Your task to perform on an android device: clear history in the chrome app Image 0: 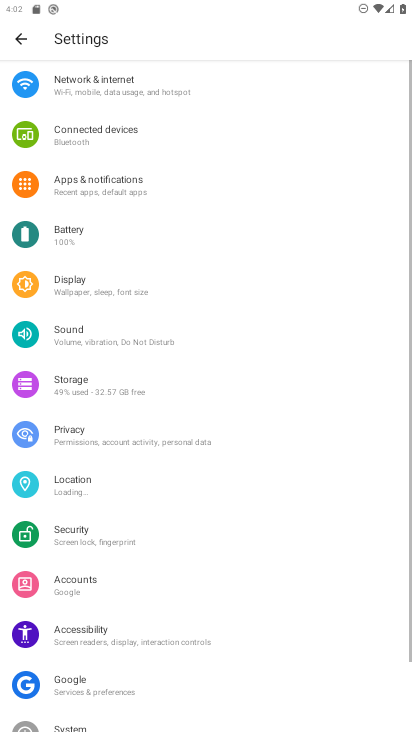
Step 0: press home button
Your task to perform on an android device: clear history in the chrome app Image 1: 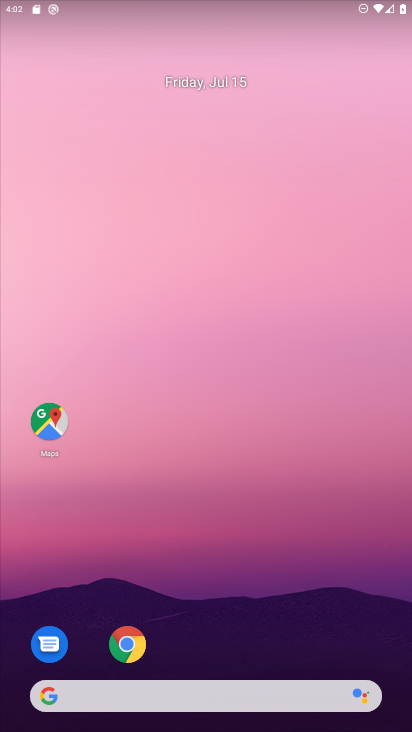
Step 1: click (130, 648)
Your task to perform on an android device: clear history in the chrome app Image 2: 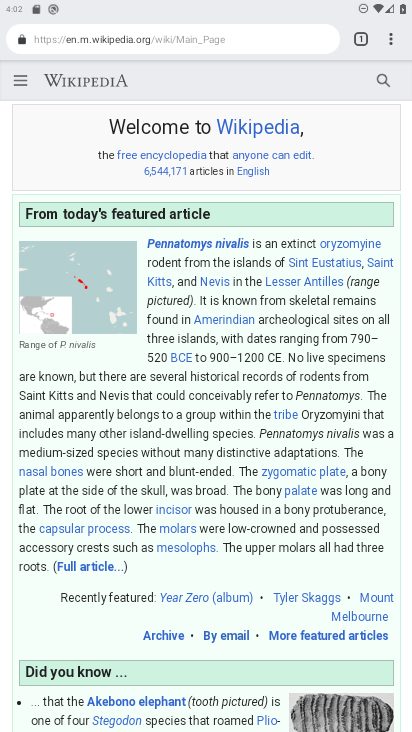
Step 2: click (396, 38)
Your task to perform on an android device: clear history in the chrome app Image 3: 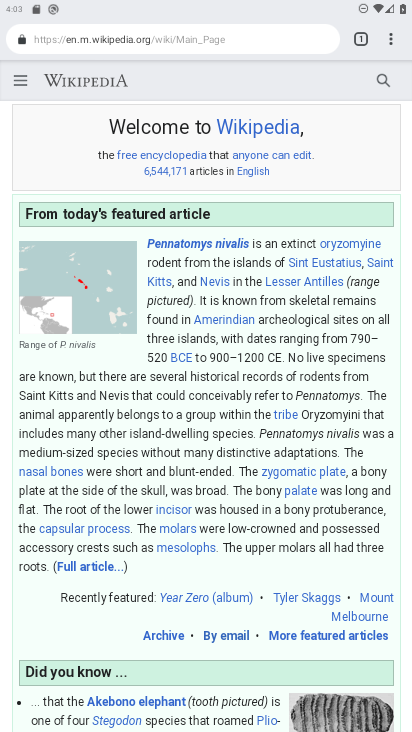
Step 3: click (393, 43)
Your task to perform on an android device: clear history in the chrome app Image 4: 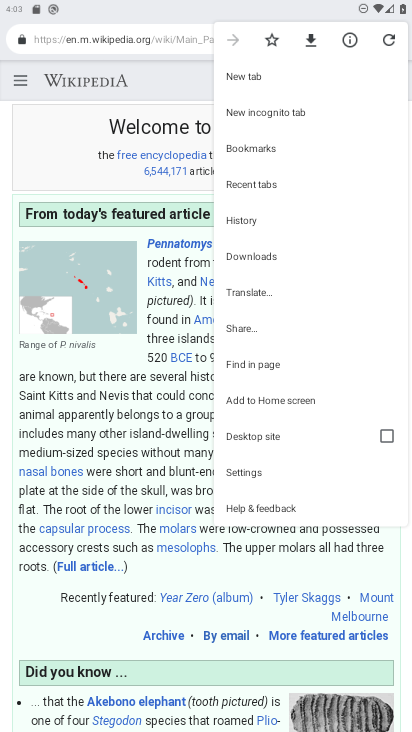
Step 4: click (262, 214)
Your task to perform on an android device: clear history in the chrome app Image 5: 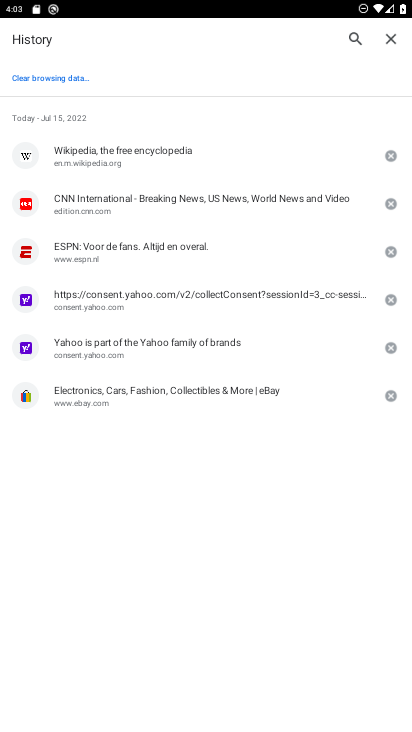
Step 5: click (72, 77)
Your task to perform on an android device: clear history in the chrome app Image 6: 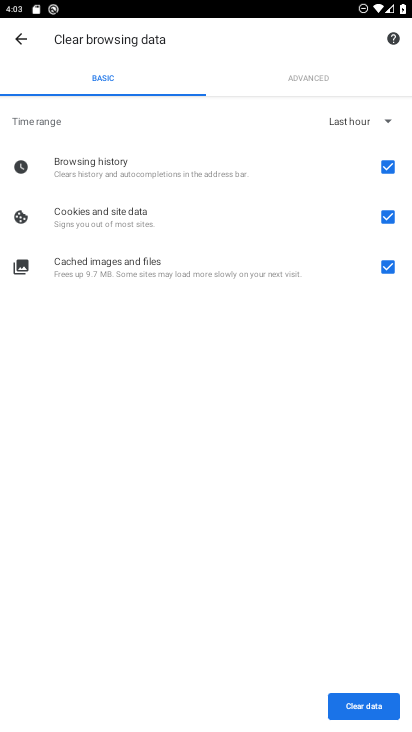
Step 6: click (357, 716)
Your task to perform on an android device: clear history in the chrome app Image 7: 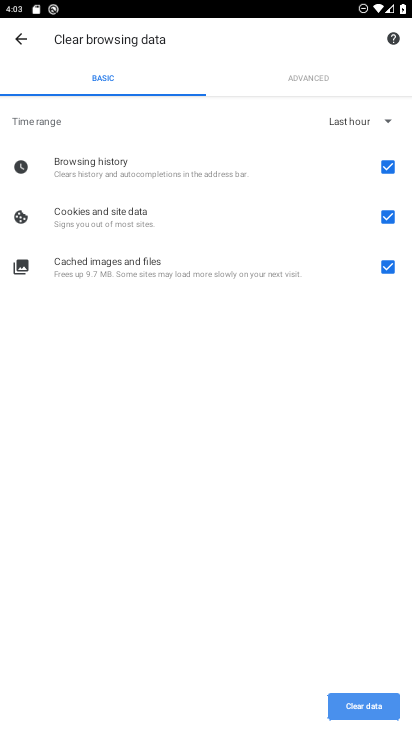
Step 7: click (343, 705)
Your task to perform on an android device: clear history in the chrome app Image 8: 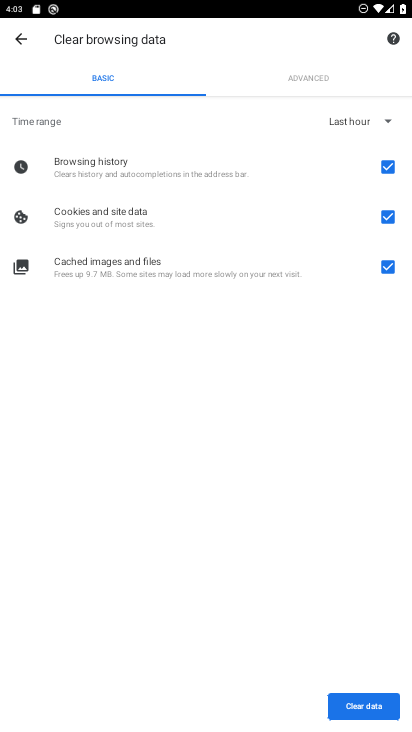
Step 8: task complete